Your task to perform on an android device: Go to Google Image 0: 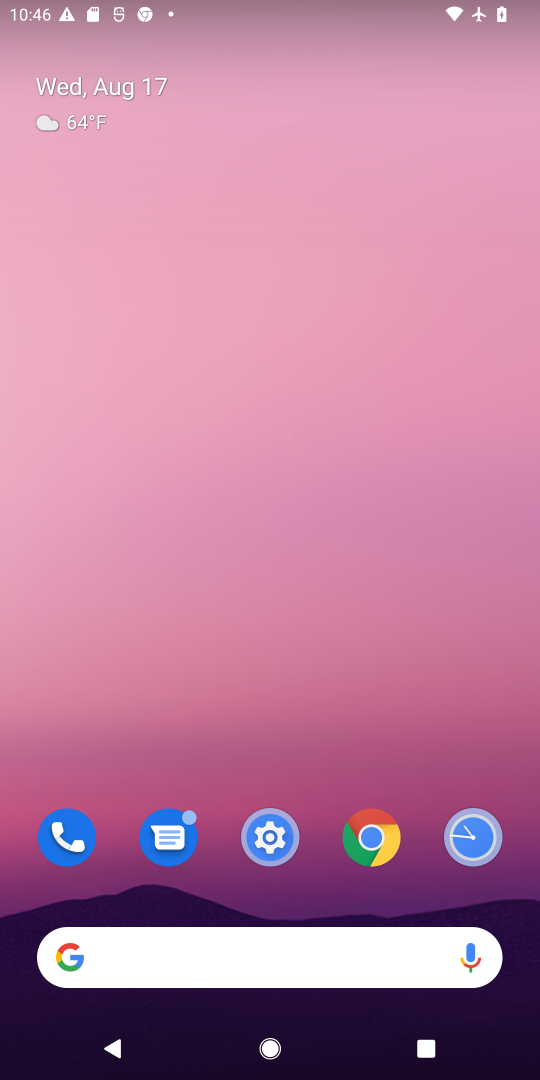
Step 0: drag from (245, 953) to (340, 198)
Your task to perform on an android device: Go to Google Image 1: 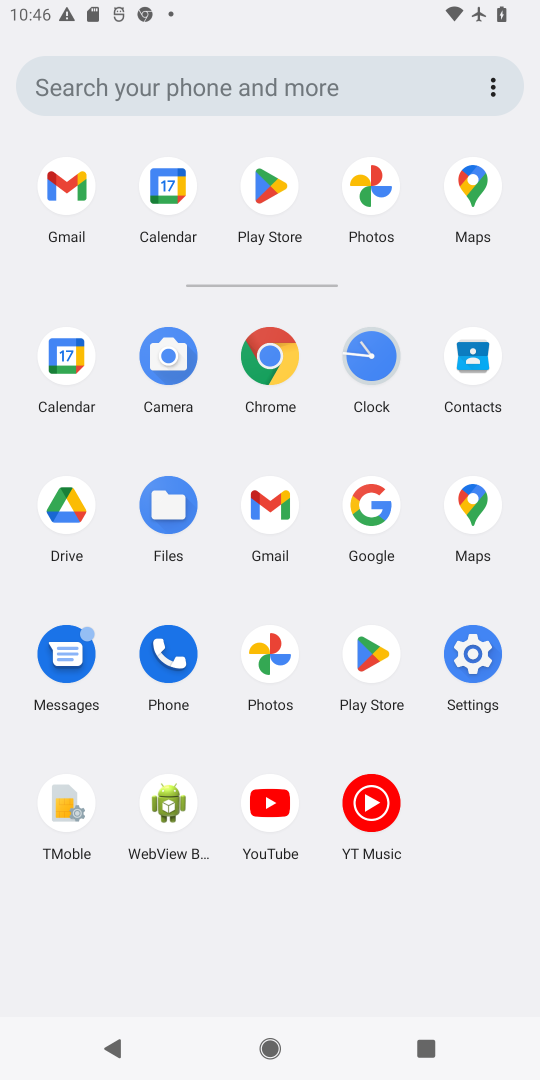
Step 1: click (367, 501)
Your task to perform on an android device: Go to Google Image 2: 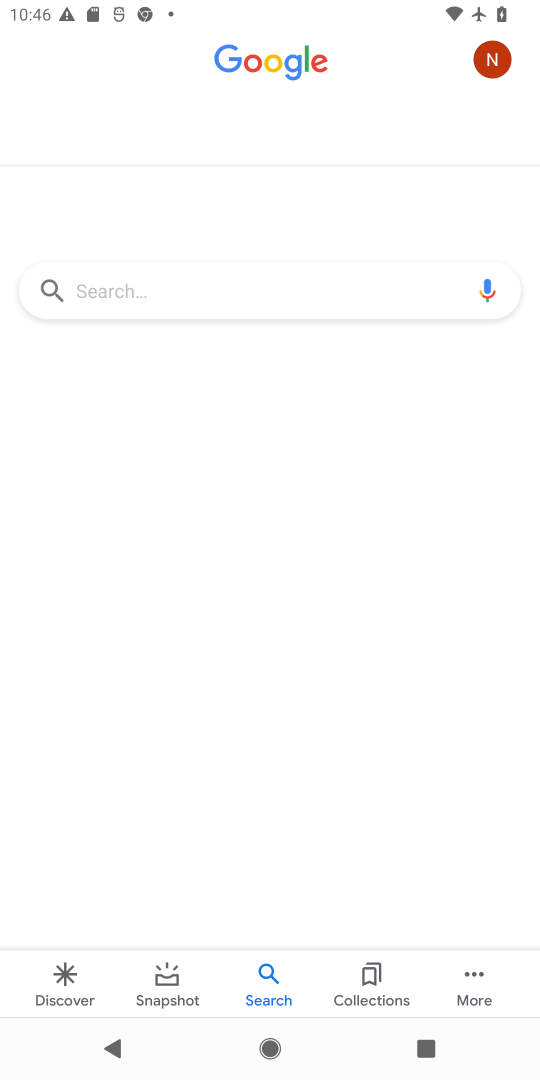
Step 2: task complete